Your task to perform on an android device: Go to notification settings Image 0: 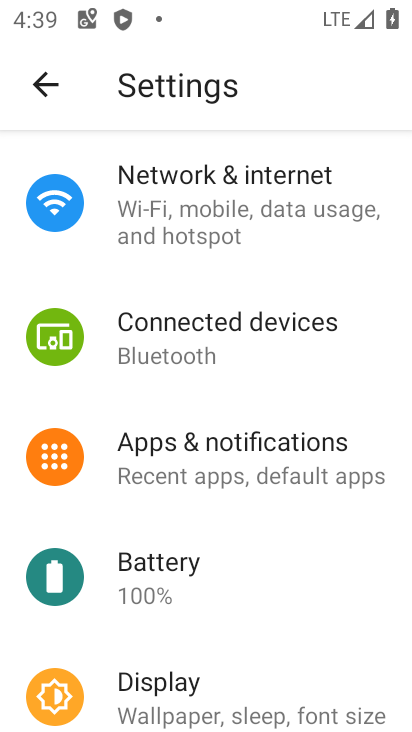
Step 0: click (214, 464)
Your task to perform on an android device: Go to notification settings Image 1: 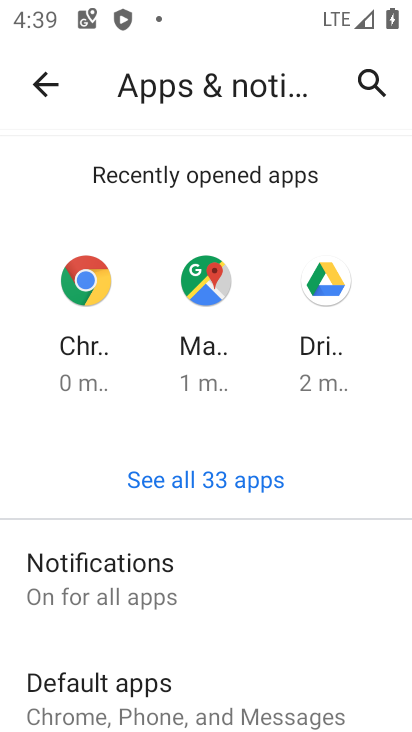
Step 1: drag from (163, 696) to (145, 473)
Your task to perform on an android device: Go to notification settings Image 2: 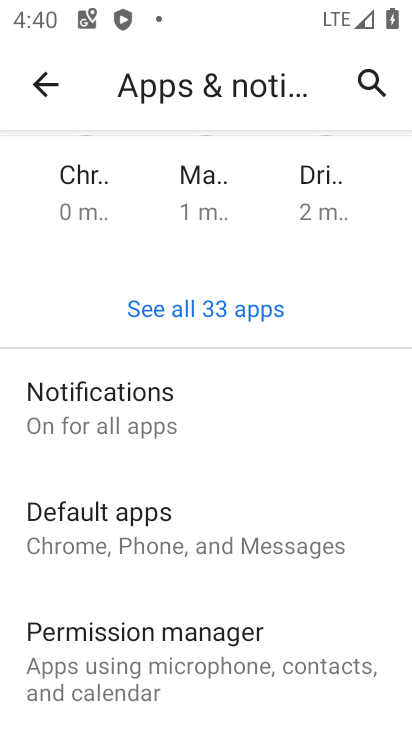
Step 2: click (90, 419)
Your task to perform on an android device: Go to notification settings Image 3: 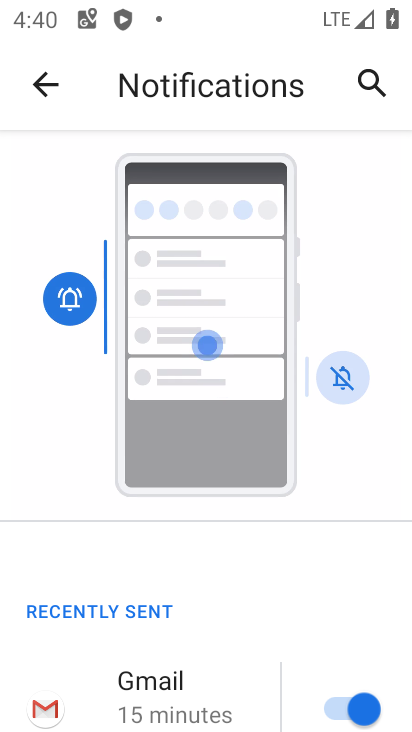
Step 3: task complete